Your task to perform on an android device: delete browsing data in the chrome app Image 0: 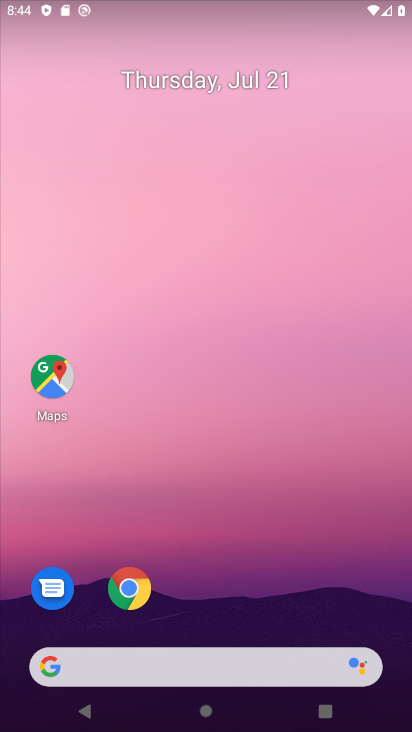
Step 0: click (215, 179)
Your task to perform on an android device: delete browsing data in the chrome app Image 1: 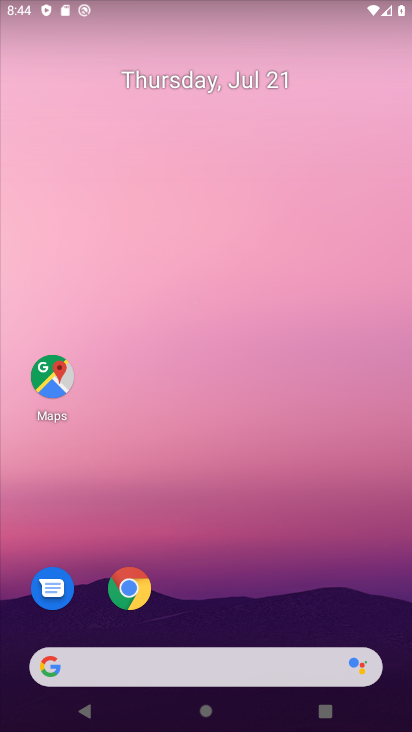
Step 1: drag from (191, 644) to (166, 104)
Your task to perform on an android device: delete browsing data in the chrome app Image 2: 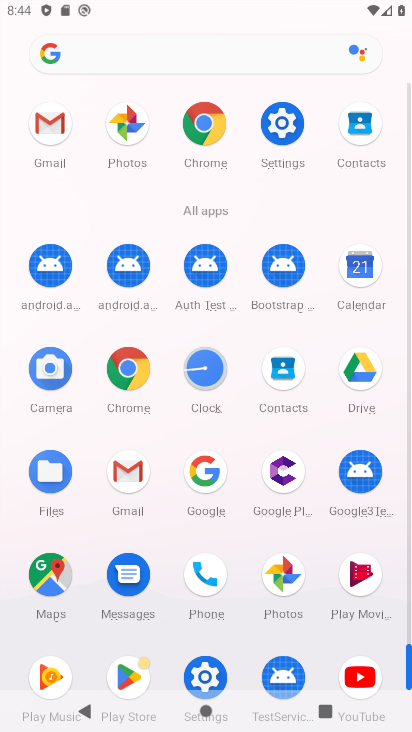
Step 2: click (191, 117)
Your task to perform on an android device: delete browsing data in the chrome app Image 3: 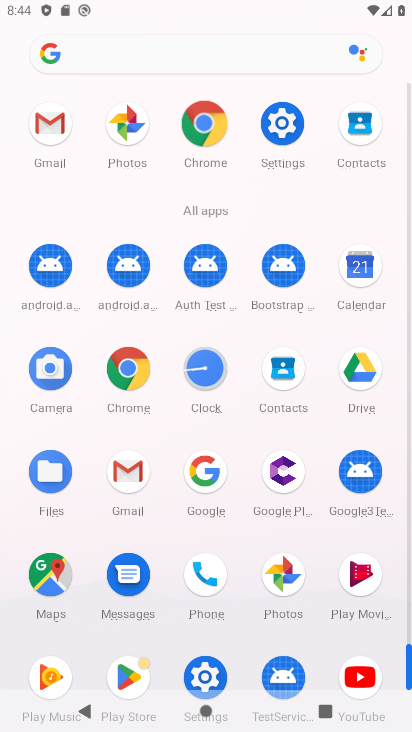
Step 3: click (193, 118)
Your task to perform on an android device: delete browsing data in the chrome app Image 4: 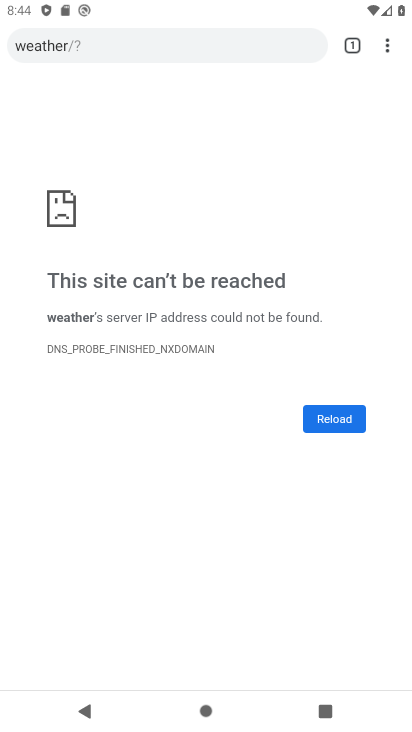
Step 4: click (326, 419)
Your task to perform on an android device: delete browsing data in the chrome app Image 5: 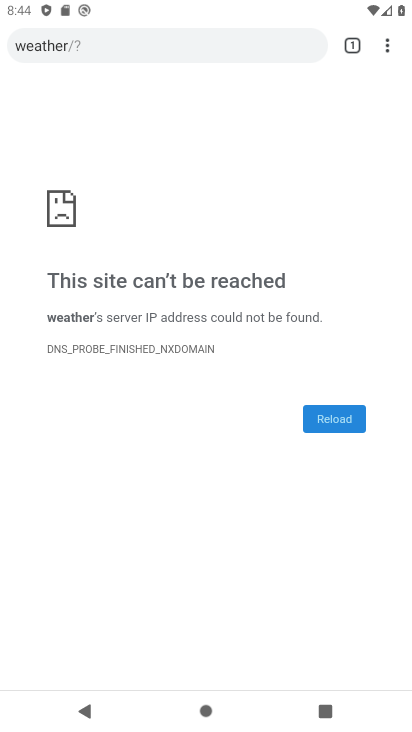
Step 5: click (335, 420)
Your task to perform on an android device: delete browsing data in the chrome app Image 6: 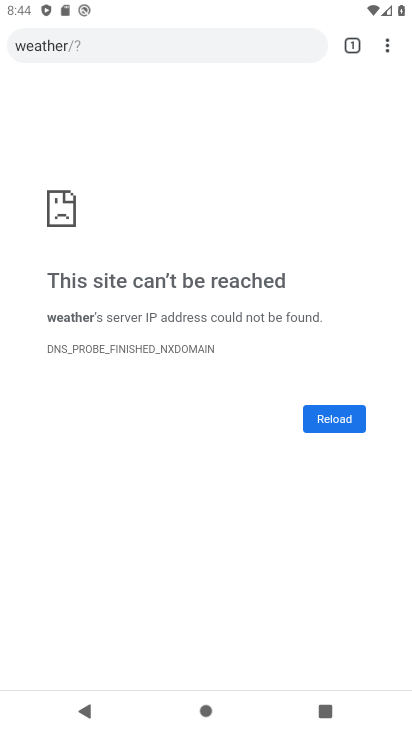
Step 6: drag from (387, 48) to (234, 255)
Your task to perform on an android device: delete browsing data in the chrome app Image 7: 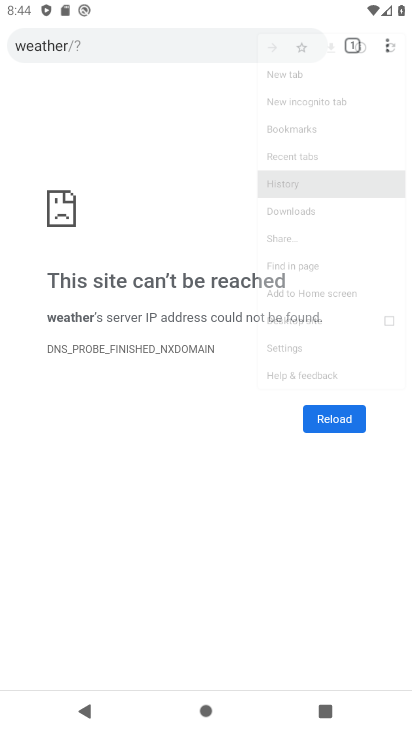
Step 7: click (235, 256)
Your task to perform on an android device: delete browsing data in the chrome app Image 8: 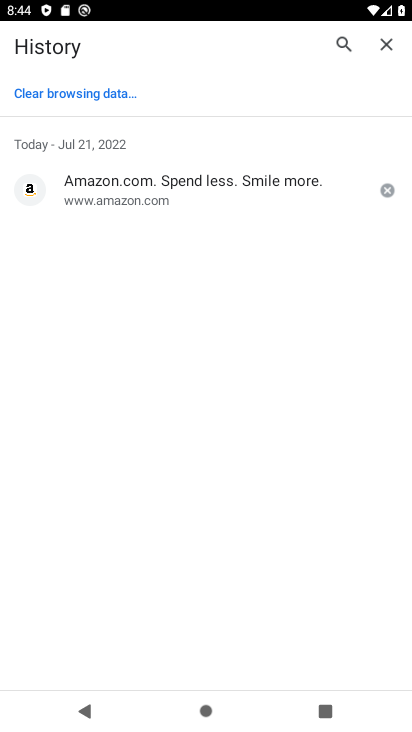
Step 8: click (106, 95)
Your task to perform on an android device: delete browsing data in the chrome app Image 9: 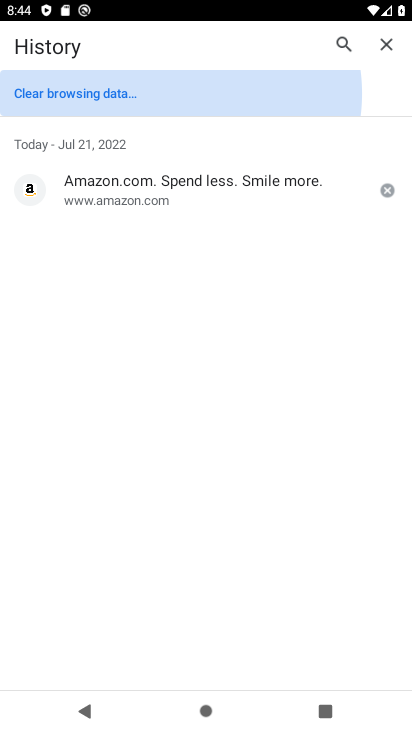
Step 9: click (106, 95)
Your task to perform on an android device: delete browsing data in the chrome app Image 10: 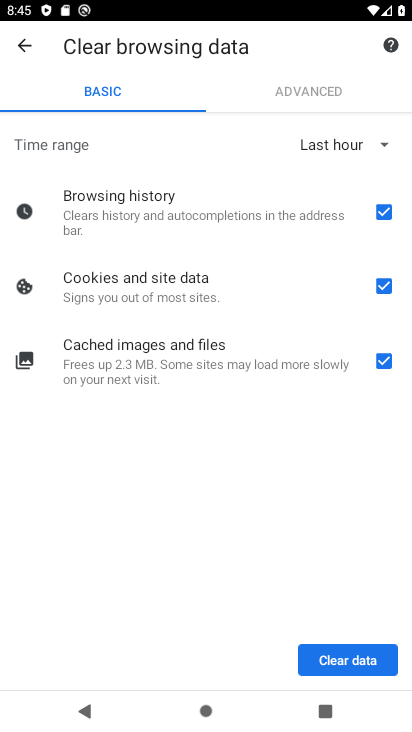
Step 10: click (342, 657)
Your task to perform on an android device: delete browsing data in the chrome app Image 11: 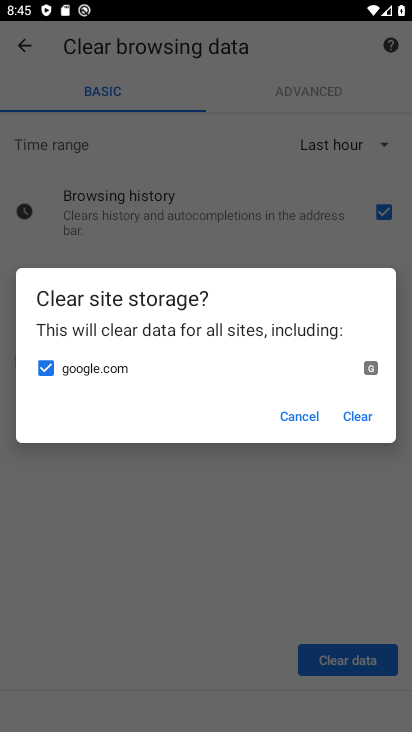
Step 11: click (357, 414)
Your task to perform on an android device: delete browsing data in the chrome app Image 12: 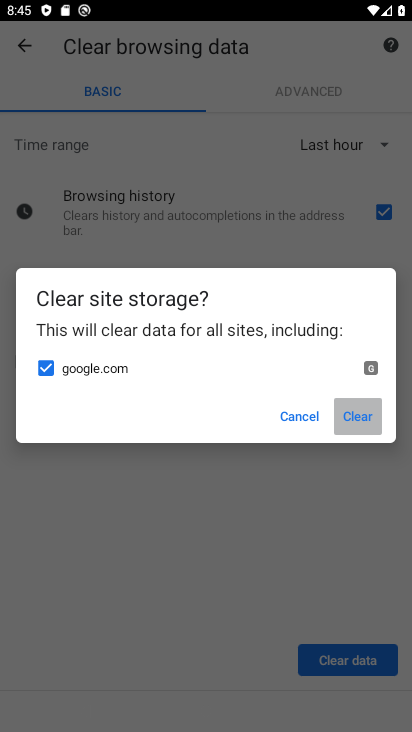
Step 12: click (367, 409)
Your task to perform on an android device: delete browsing data in the chrome app Image 13: 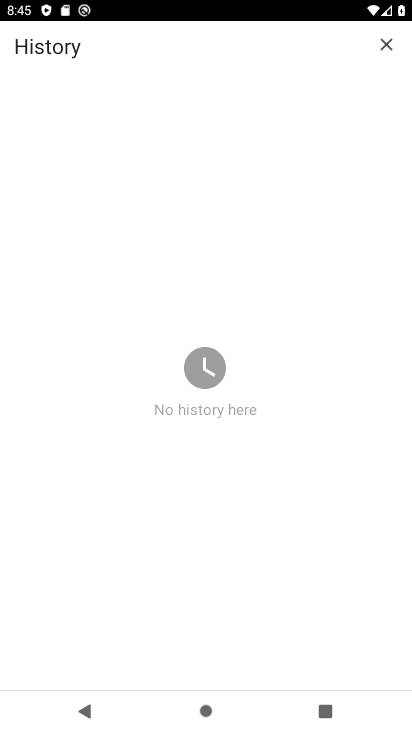
Step 13: task complete